Your task to perform on an android device: Open location settings Image 0: 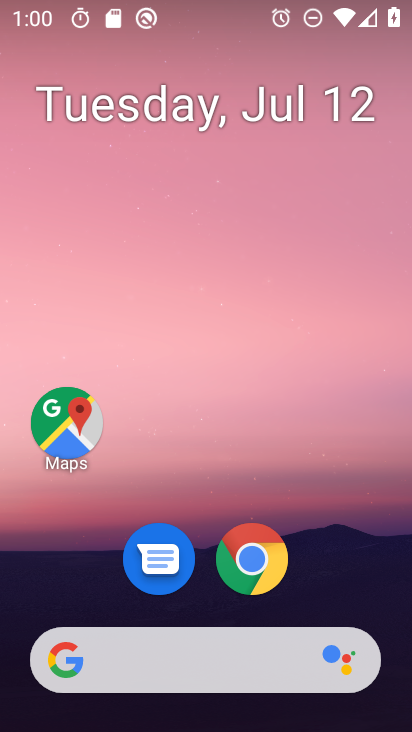
Step 0: drag from (216, 542) to (252, 14)
Your task to perform on an android device: Open location settings Image 1: 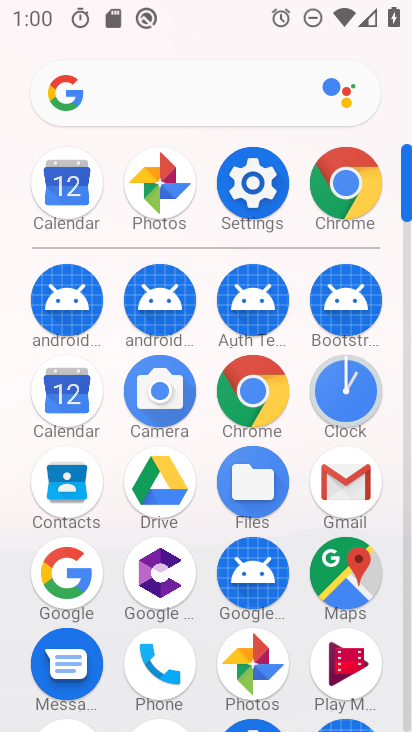
Step 1: click (262, 184)
Your task to perform on an android device: Open location settings Image 2: 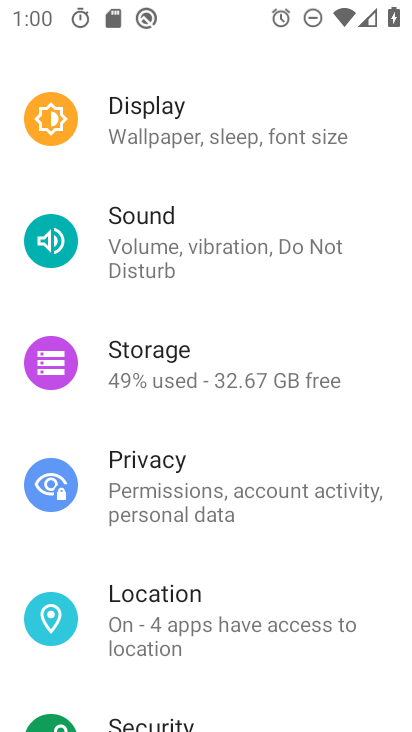
Step 2: click (145, 620)
Your task to perform on an android device: Open location settings Image 3: 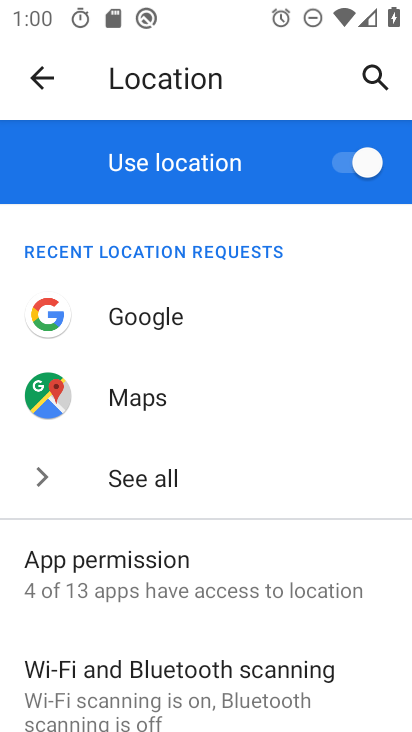
Step 3: task complete